Your task to perform on an android device: turn off airplane mode Image 0: 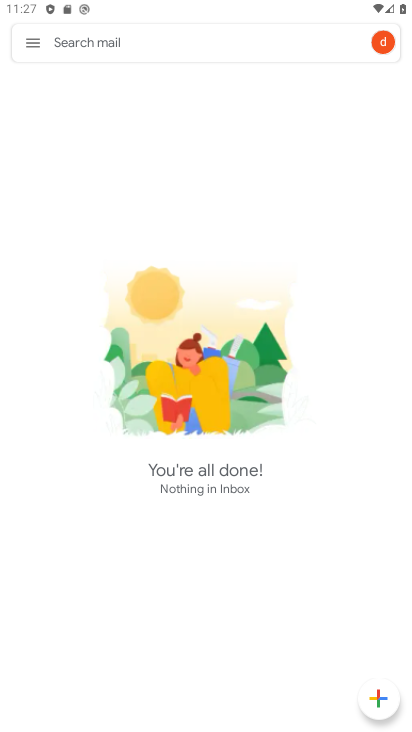
Step 0: press home button
Your task to perform on an android device: turn off airplane mode Image 1: 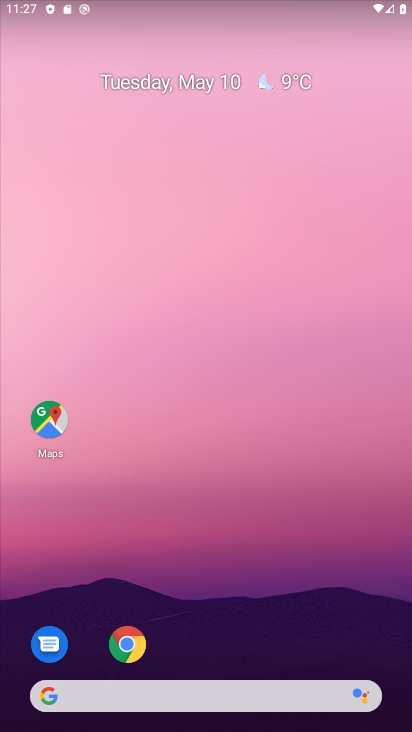
Step 1: drag from (237, 597) to (224, 4)
Your task to perform on an android device: turn off airplane mode Image 2: 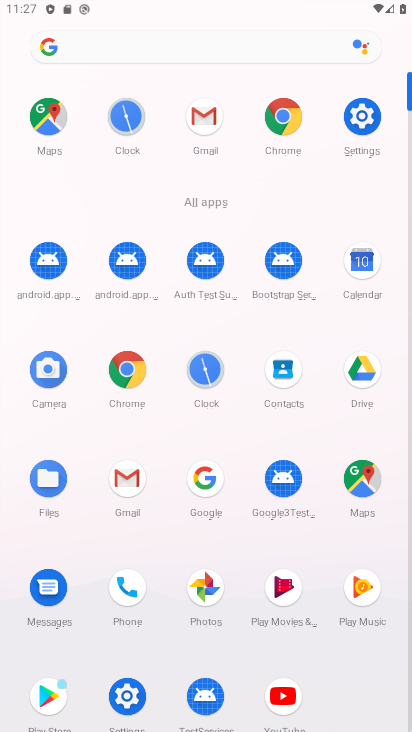
Step 2: click (369, 134)
Your task to perform on an android device: turn off airplane mode Image 3: 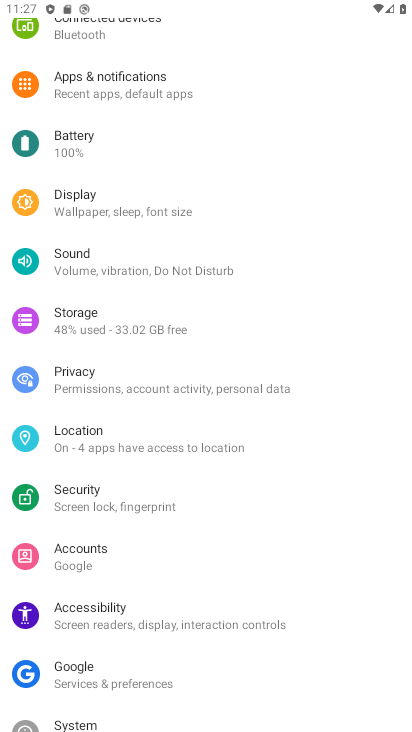
Step 3: drag from (166, 193) to (131, 654)
Your task to perform on an android device: turn off airplane mode Image 4: 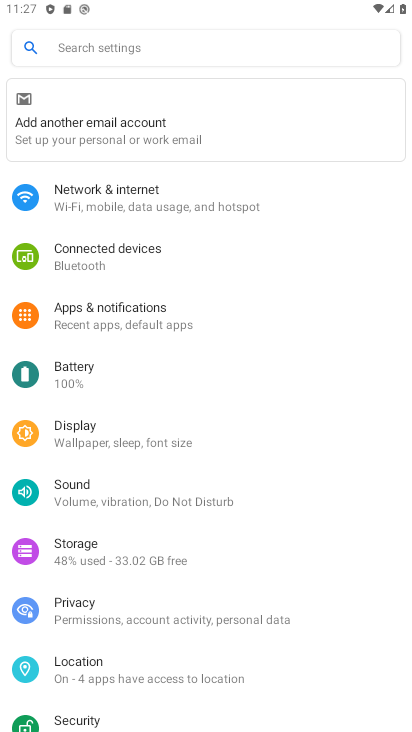
Step 4: click (166, 210)
Your task to perform on an android device: turn off airplane mode Image 5: 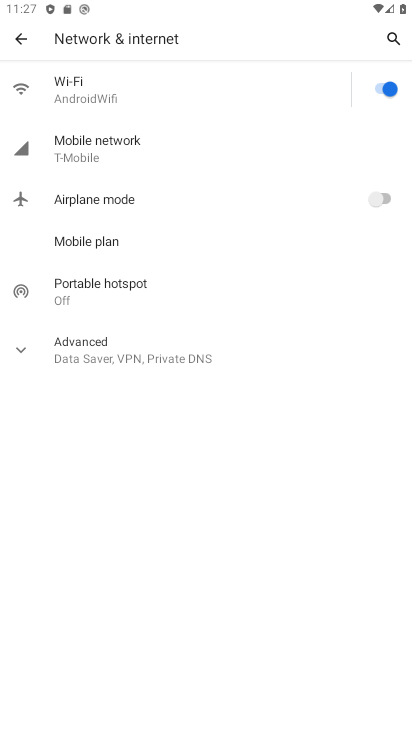
Step 5: task complete